Your task to perform on an android device: toggle javascript in the chrome app Image 0: 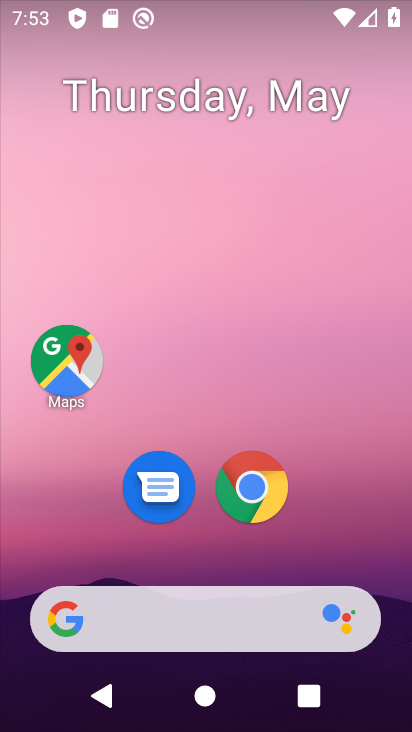
Step 0: click (204, 77)
Your task to perform on an android device: toggle javascript in the chrome app Image 1: 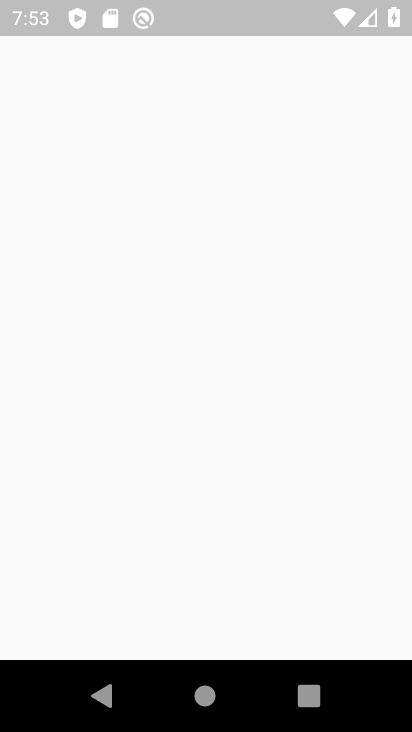
Step 1: press home button
Your task to perform on an android device: toggle javascript in the chrome app Image 2: 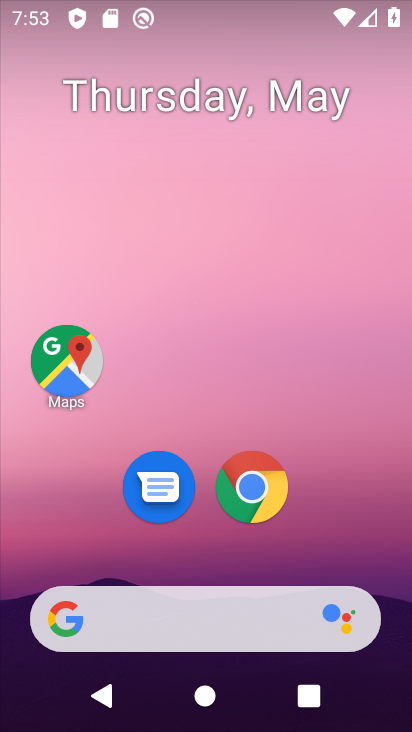
Step 2: click (261, 499)
Your task to perform on an android device: toggle javascript in the chrome app Image 3: 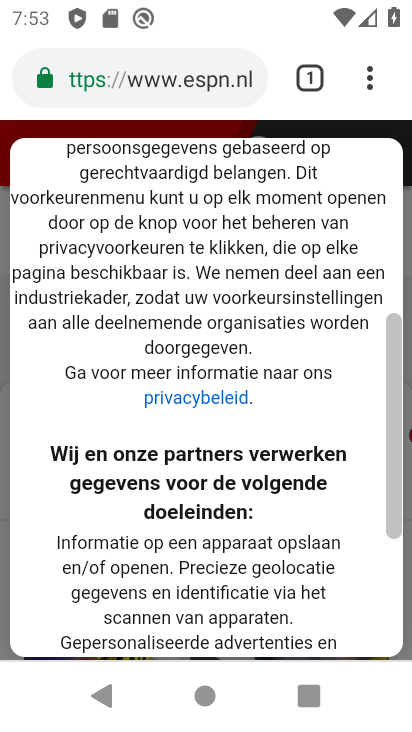
Step 3: click (317, 80)
Your task to perform on an android device: toggle javascript in the chrome app Image 4: 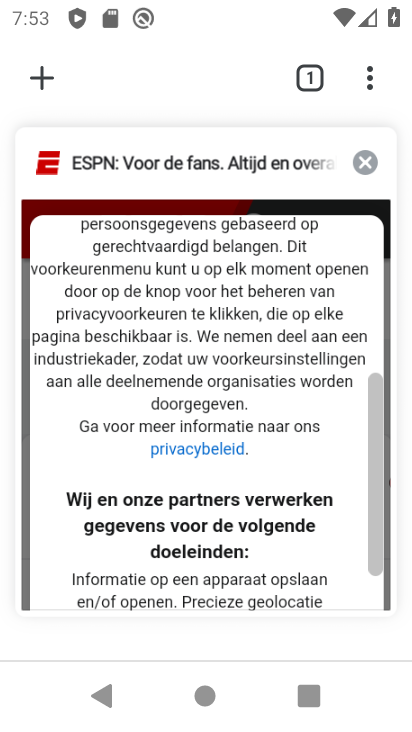
Step 4: click (362, 159)
Your task to perform on an android device: toggle javascript in the chrome app Image 5: 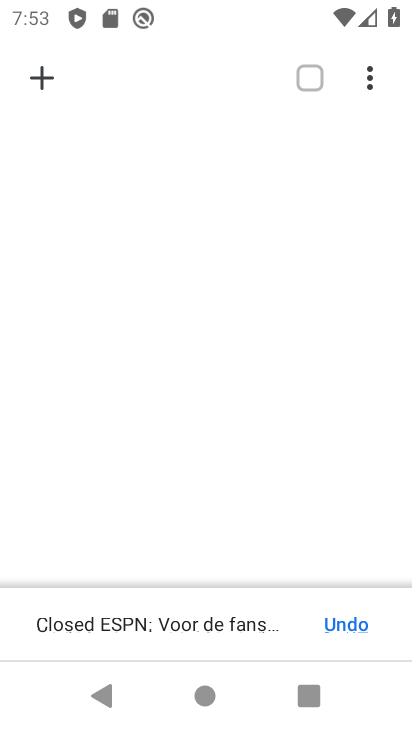
Step 5: click (365, 78)
Your task to perform on an android device: toggle javascript in the chrome app Image 6: 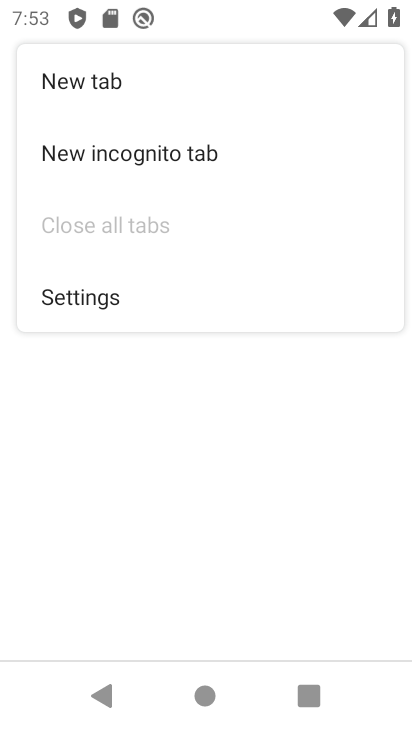
Step 6: click (85, 304)
Your task to perform on an android device: toggle javascript in the chrome app Image 7: 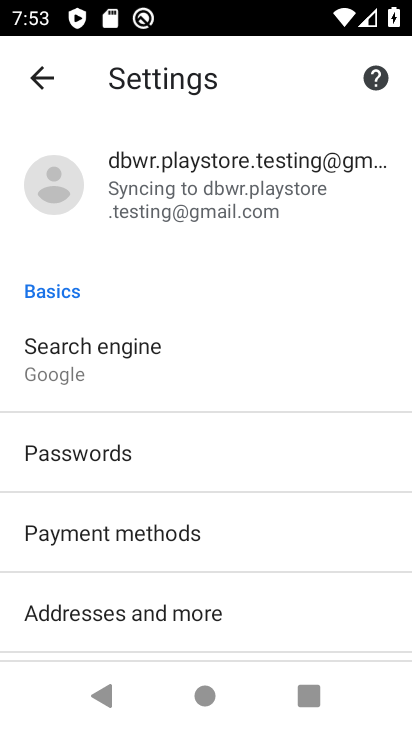
Step 7: drag from (299, 599) to (305, 287)
Your task to perform on an android device: toggle javascript in the chrome app Image 8: 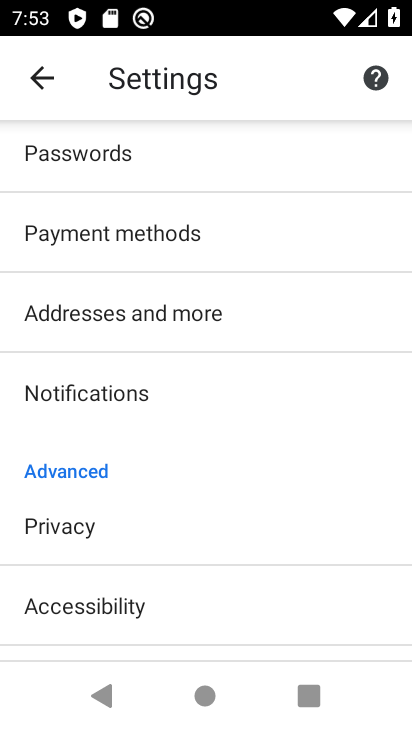
Step 8: drag from (230, 573) to (245, 424)
Your task to perform on an android device: toggle javascript in the chrome app Image 9: 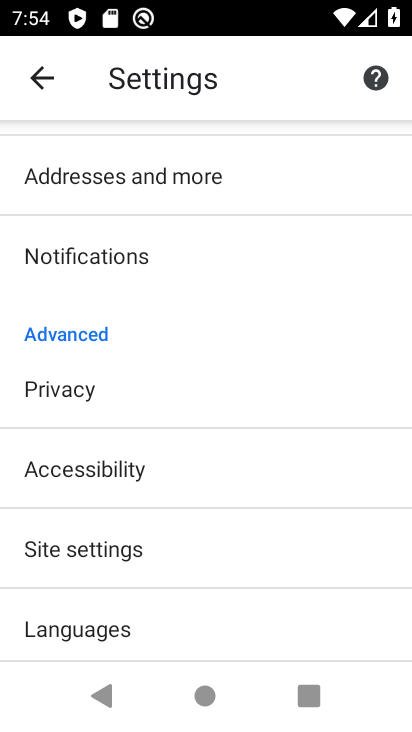
Step 9: click (81, 544)
Your task to perform on an android device: toggle javascript in the chrome app Image 10: 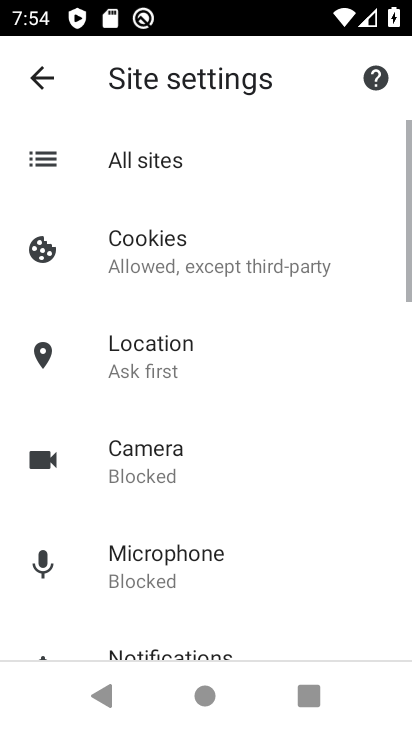
Step 10: drag from (311, 604) to (319, 255)
Your task to perform on an android device: toggle javascript in the chrome app Image 11: 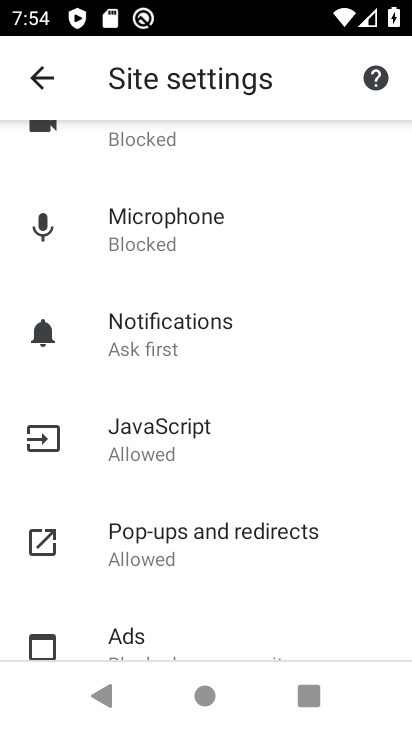
Step 11: click (179, 450)
Your task to perform on an android device: toggle javascript in the chrome app Image 12: 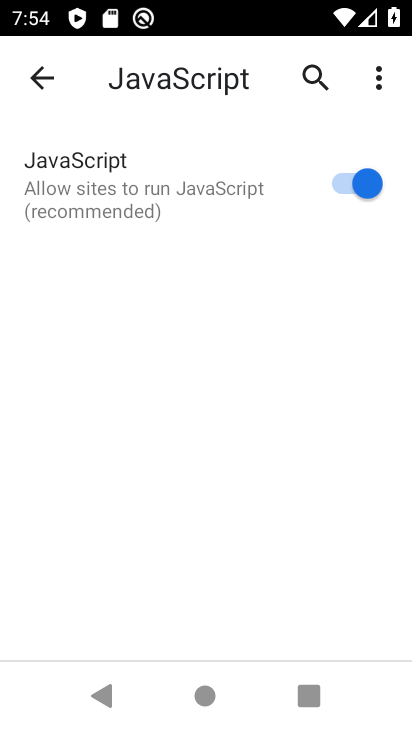
Step 12: click (356, 192)
Your task to perform on an android device: toggle javascript in the chrome app Image 13: 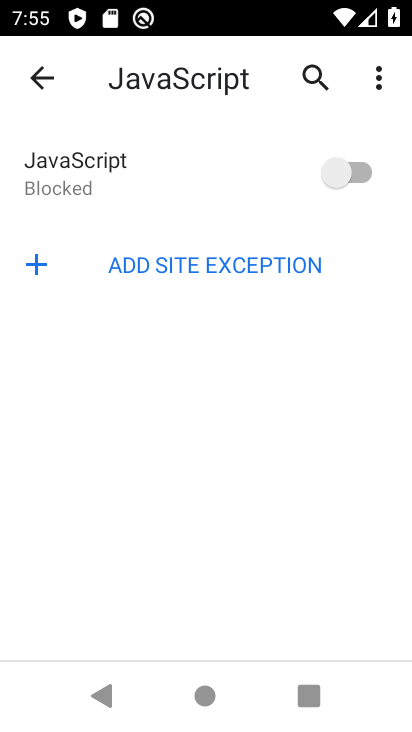
Step 13: task complete